Your task to perform on an android device: find snoozed emails in the gmail app Image 0: 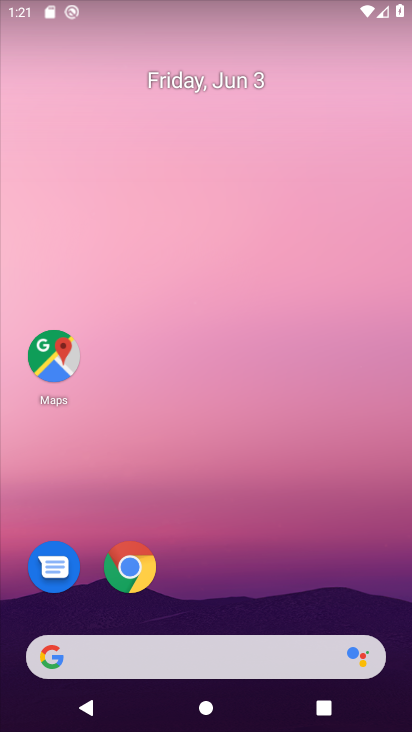
Step 0: drag from (193, 589) to (226, 189)
Your task to perform on an android device: find snoozed emails in the gmail app Image 1: 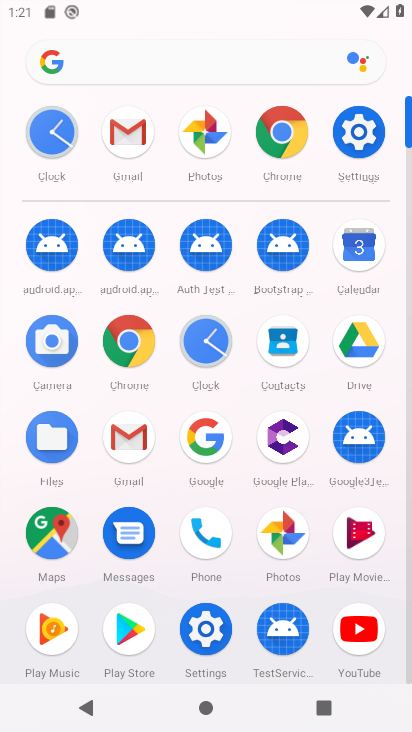
Step 1: click (127, 432)
Your task to perform on an android device: find snoozed emails in the gmail app Image 2: 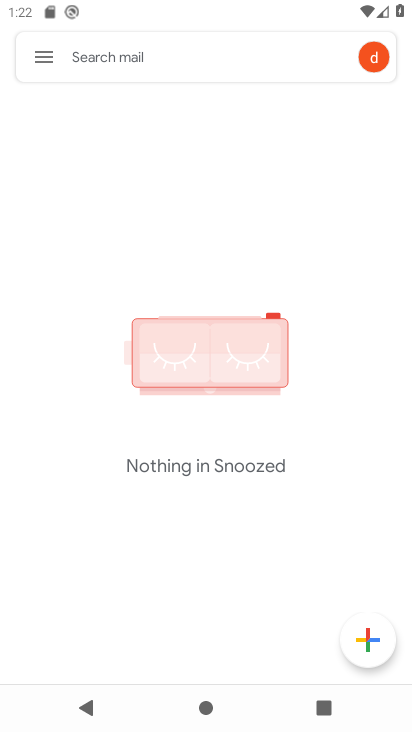
Step 2: task complete